Your task to perform on an android device: Open privacy settings Image 0: 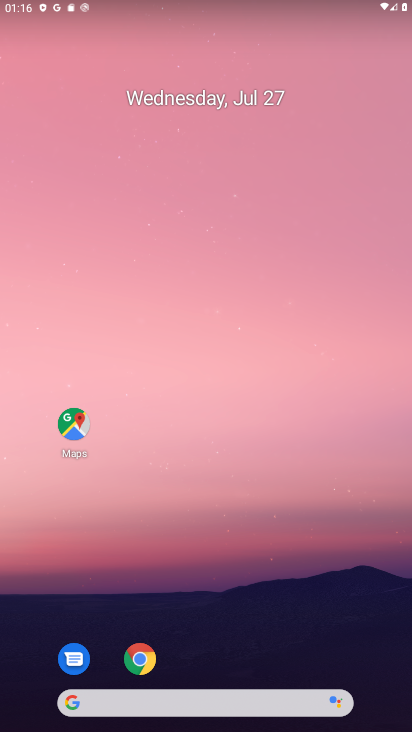
Step 0: drag from (250, 650) to (163, 82)
Your task to perform on an android device: Open privacy settings Image 1: 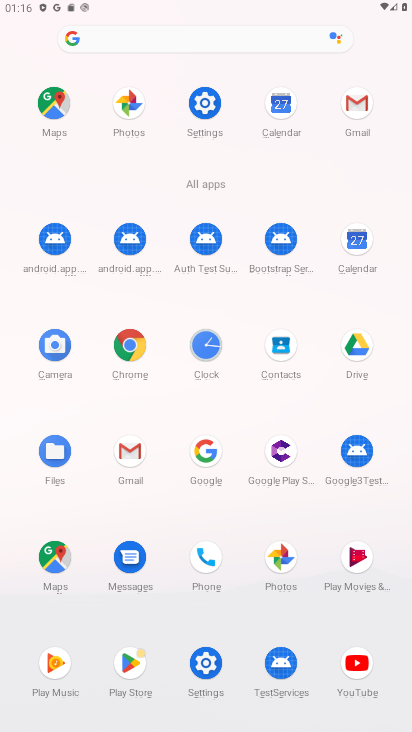
Step 1: click (205, 667)
Your task to perform on an android device: Open privacy settings Image 2: 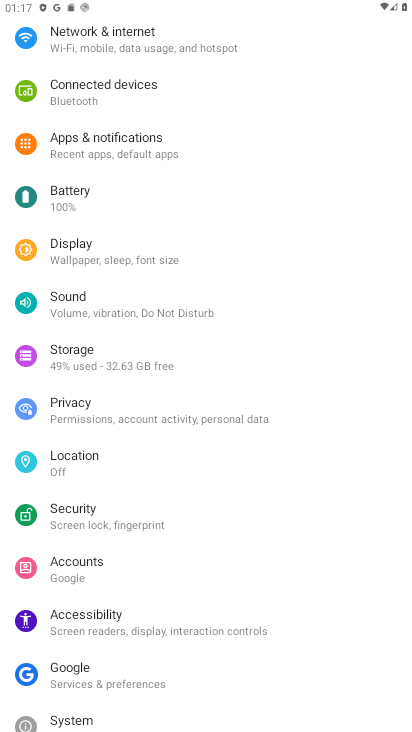
Step 2: click (58, 404)
Your task to perform on an android device: Open privacy settings Image 3: 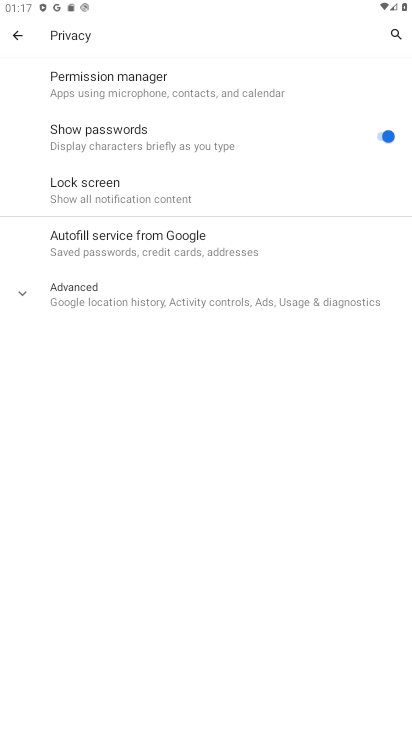
Step 3: task complete